Your task to perform on an android device: Go to eBay Image 0: 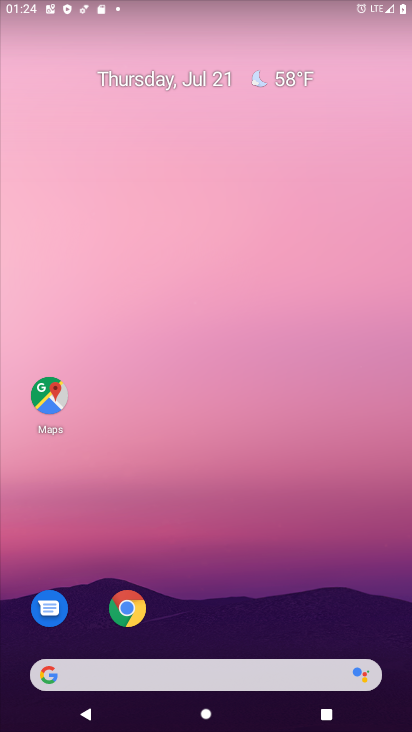
Step 0: press home button
Your task to perform on an android device: Go to eBay Image 1: 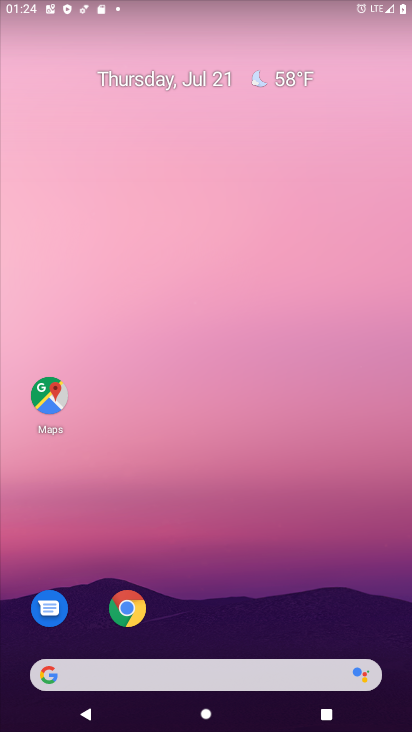
Step 1: click (124, 605)
Your task to perform on an android device: Go to eBay Image 2: 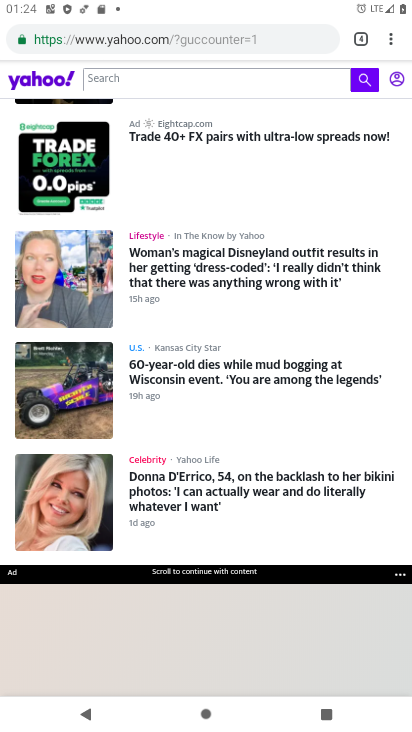
Step 2: click (360, 31)
Your task to perform on an android device: Go to eBay Image 3: 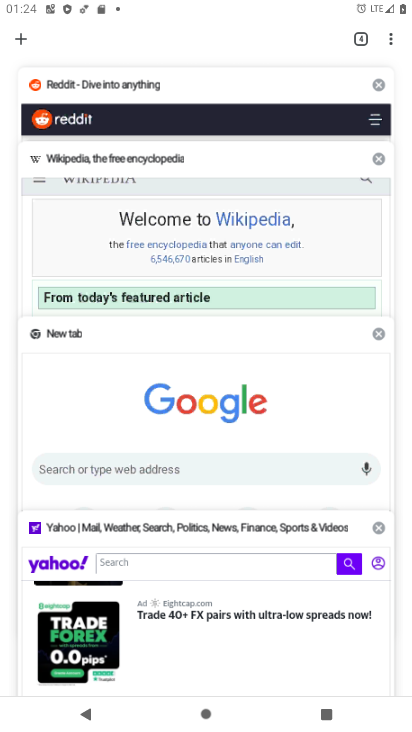
Step 3: click (203, 378)
Your task to perform on an android device: Go to eBay Image 4: 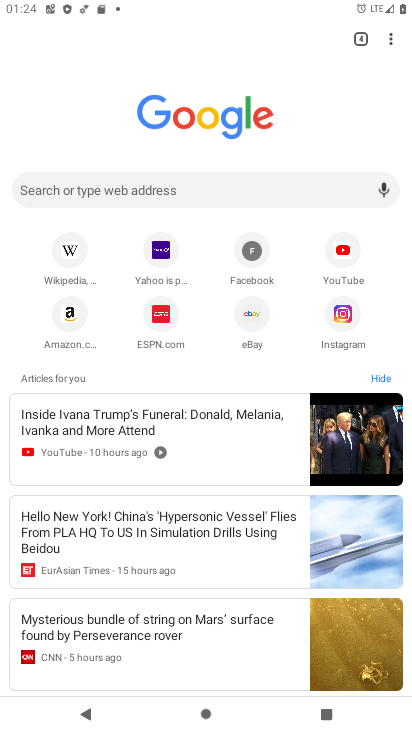
Step 4: click (254, 302)
Your task to perform on an android device: Go to eBay Image 5: 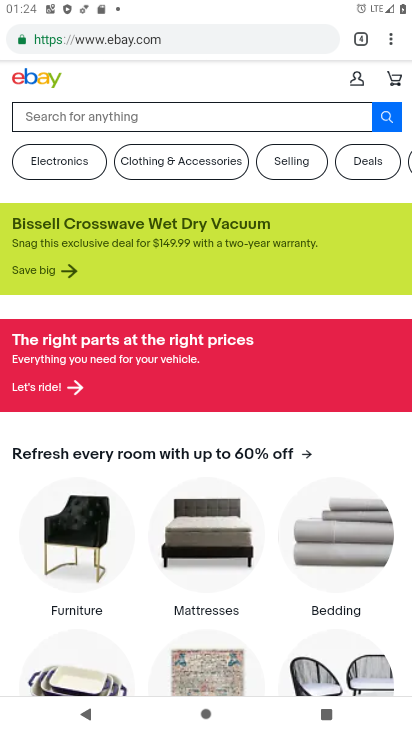
Step 5: task complete